Your task to perform on an android device: What is the news today? Image 0: 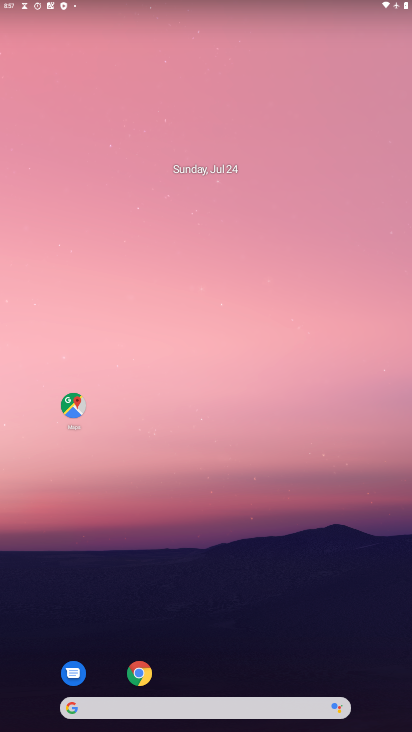
Step 0: drag from (176, 621) to (261, 249)
Your task to perform on an android device: What is the news today? Image 1: 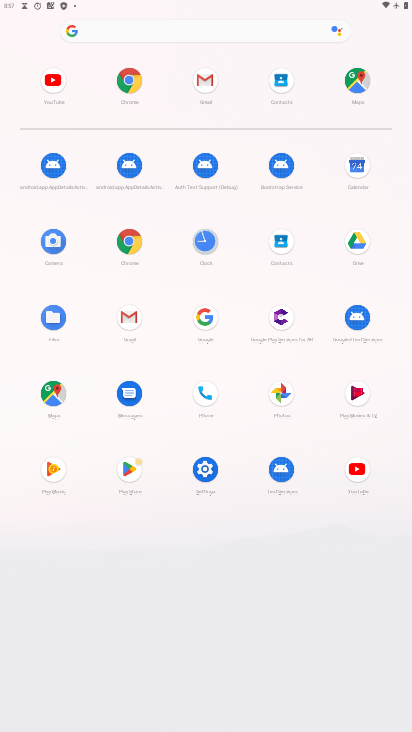
Step 1: drag from (190, 553) to (190, 152)
Your task to perform on an android device: What is the news today? Image 2: 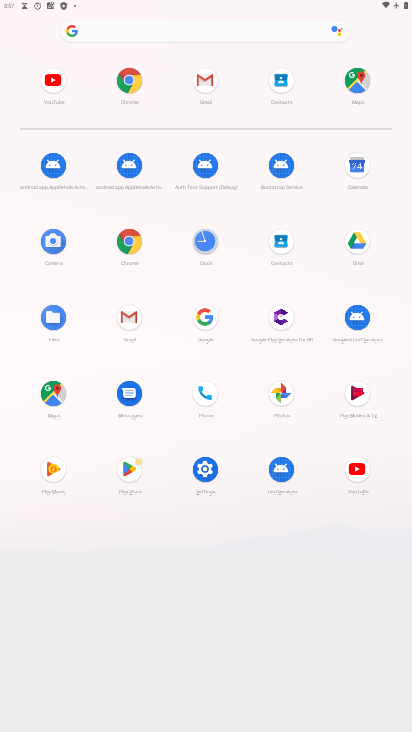
Step 2: click (148, 32)
Your task to perform on an android device: What is the news today? Image 3: 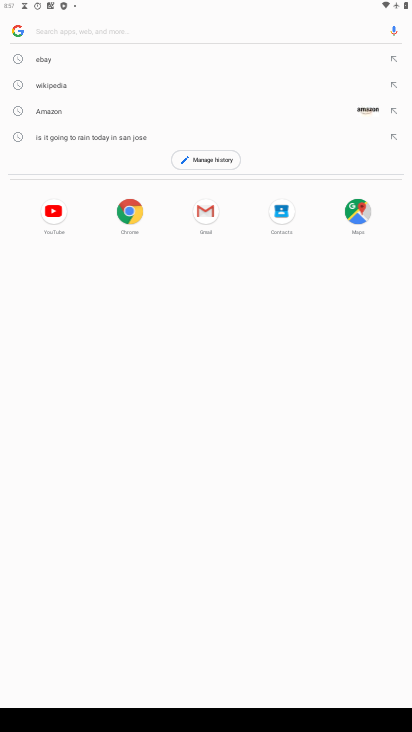
Step 3: type "news today?"
Your task to perform on an android device: What is the news today? Image 4: 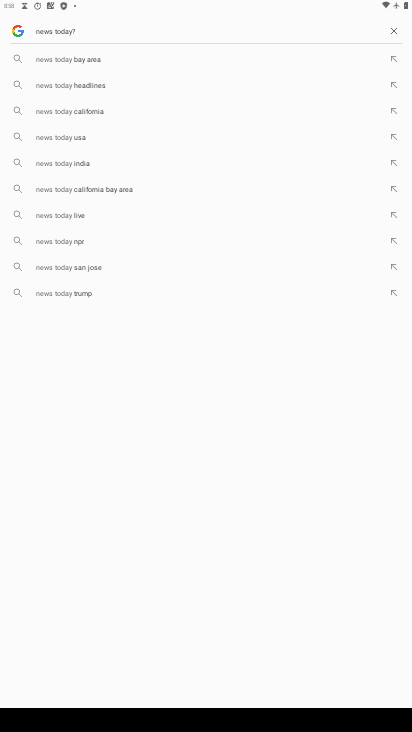
Step 4: click (59, 165)
Your task to perform on an android device: What is the news today? Image 5: 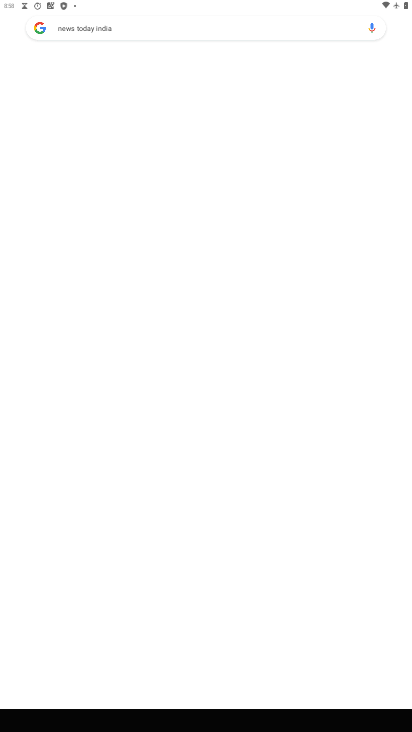
Step 5: drag from (164, 588) to (269, 6)
Your task to perform on an android device: What is the news today? Image 6: 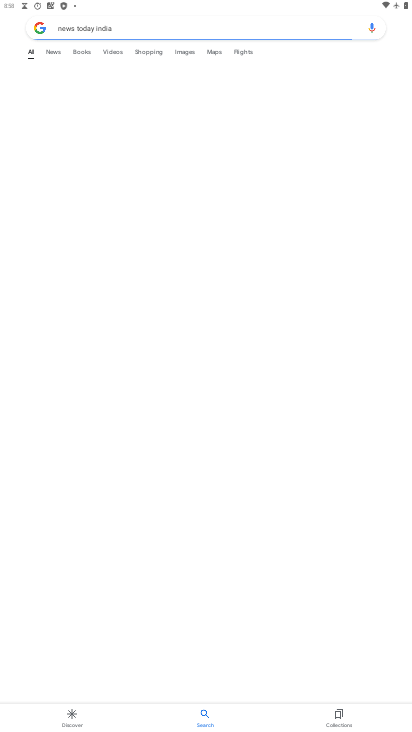
Step 6: drag from (218, 665) to (324, 318)
Your task to perform on an android device: What is the news today? Image 7: 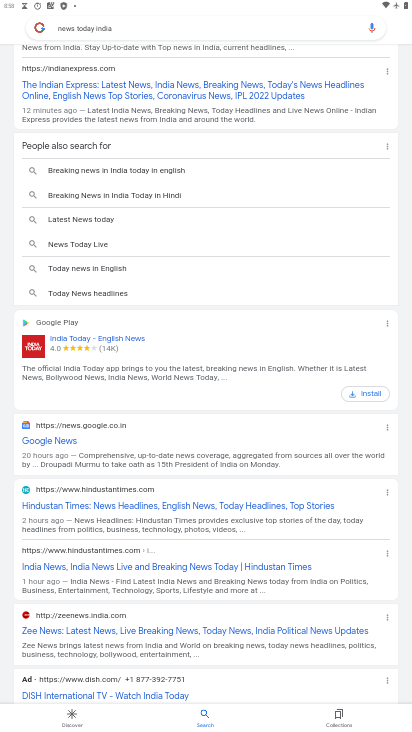
Step 7: drag from (185, 236) to (408, 294)
Your task to perform on an android device: What is the news today? Image 8: 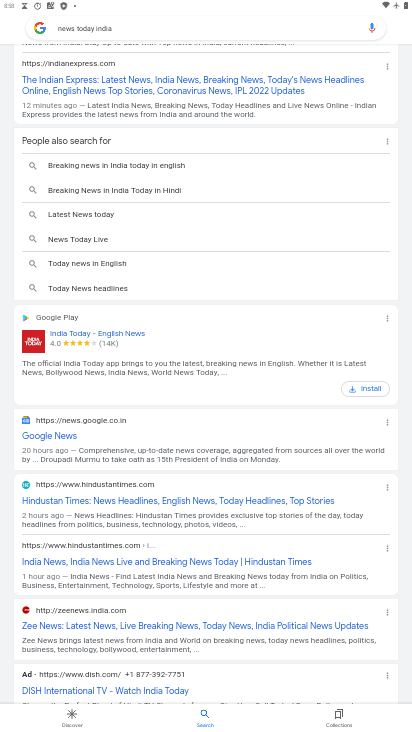
Step 8: drag from (201, 181) to (294, 551)
Your task to perform on an android device: What is the news today? Image 9: 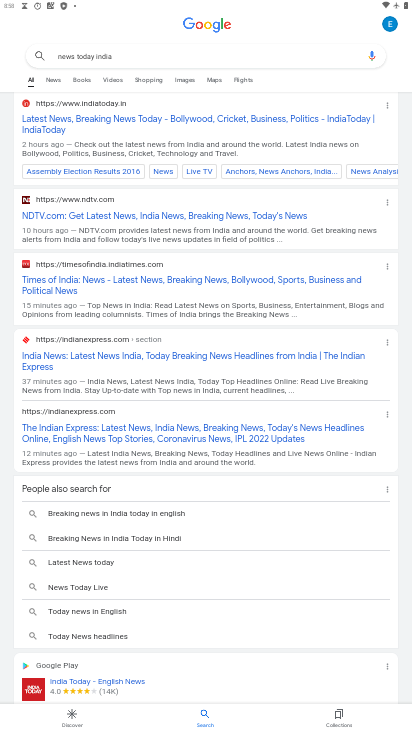
Step 9: drag from (220, 83) to (290, 501)
Your task to perform on an android device: What is the news today? Image 10: 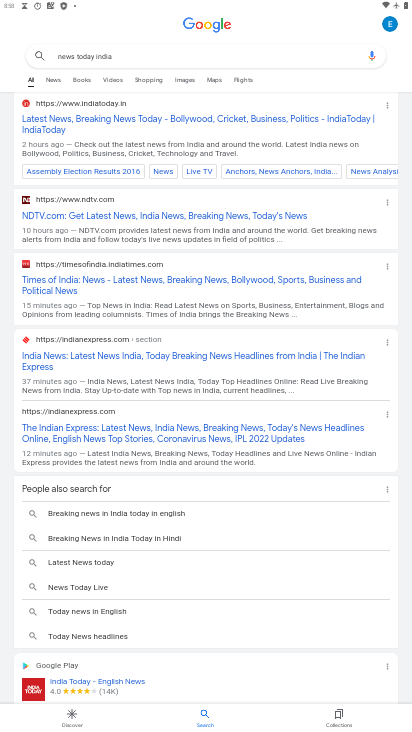
Step 10: click (53, 110)
Your task to perform on an android device: What is the news today? Image 11: 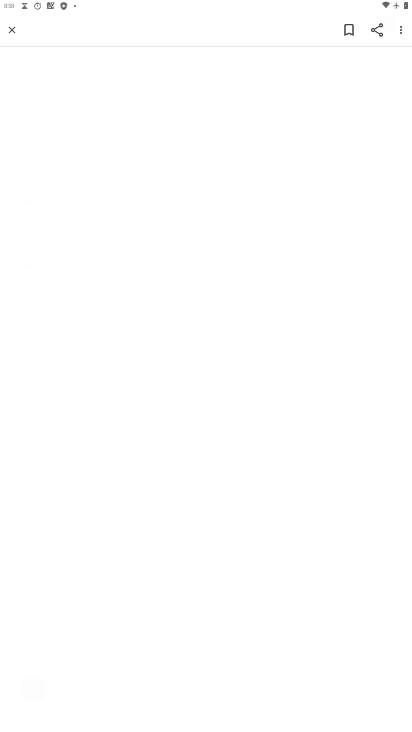
Step 11: task complete